Your task to perform on an android device: manage bookmarks in the chrome app Image 0: 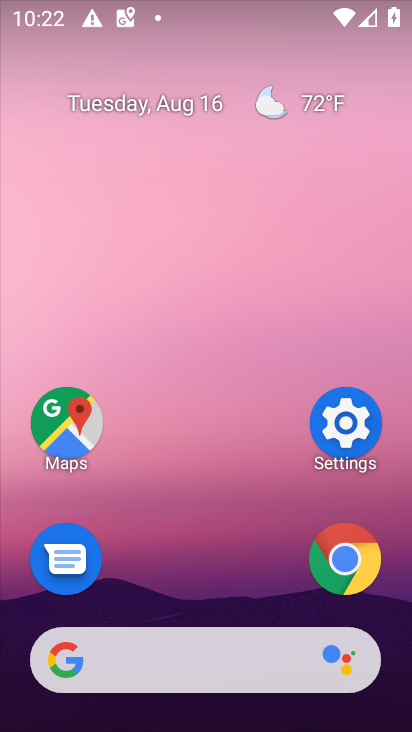
Step 0: click (335, 550)
Your task to perform on an android device: manage bookmarks in the chrome app Image 1: 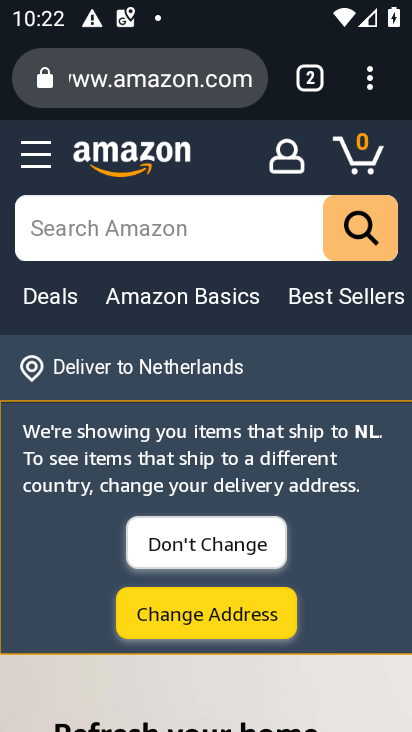
Step 1: drag from (371, 75) to (151, 294)
Your task to perform on an android device: manage bookmarks in the chrome app Image 2: 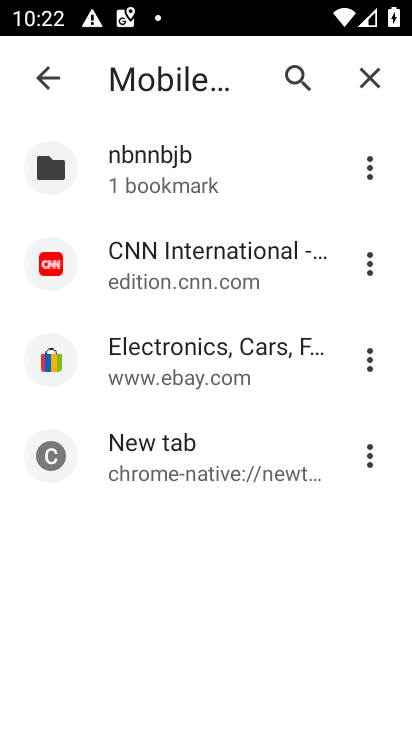
Step 2: click (362, 263)
Your task to perform on an android device: manage bookmarks in the chrome app Image 3: 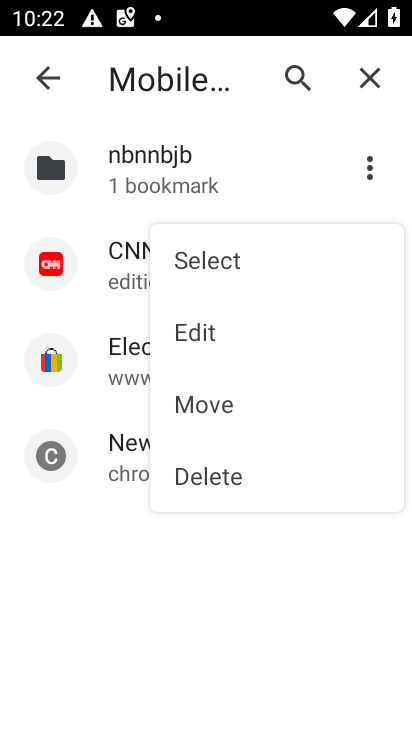
Step 3: click (224, 401)
Your task to perform on an android device: manage bookmarks in the chrome app Image 4: 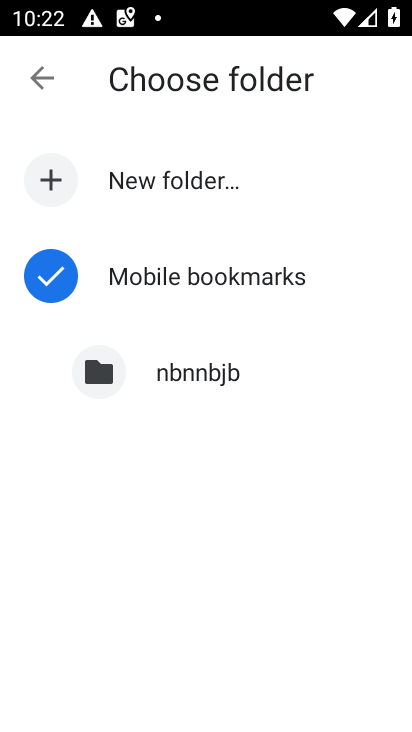
Step 4: click (225, 370)
Your task to perform on an android device: manage bookmarks in the chrome app Image 5: 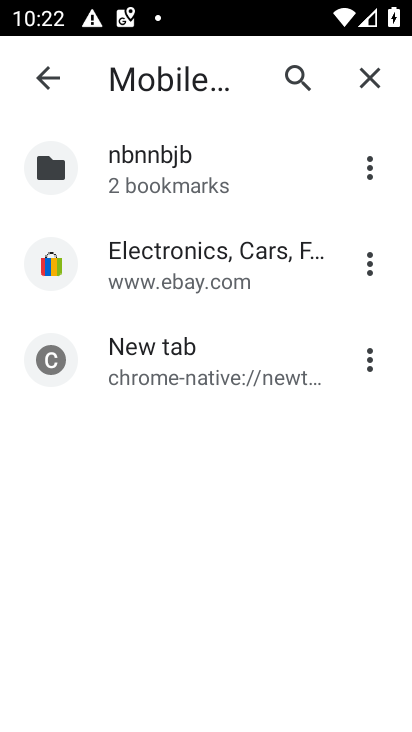
Step 5: task complete